Your task to perform on an android device: Open location settings Image 0: 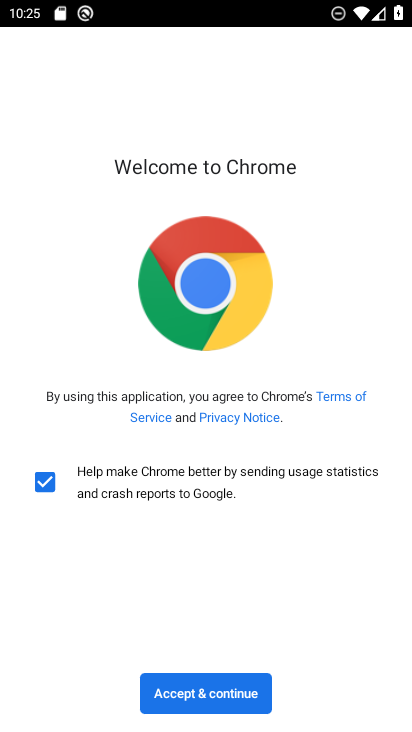
Step 0: press back button
Your task to perform on an android device: Open location settings Image 1: 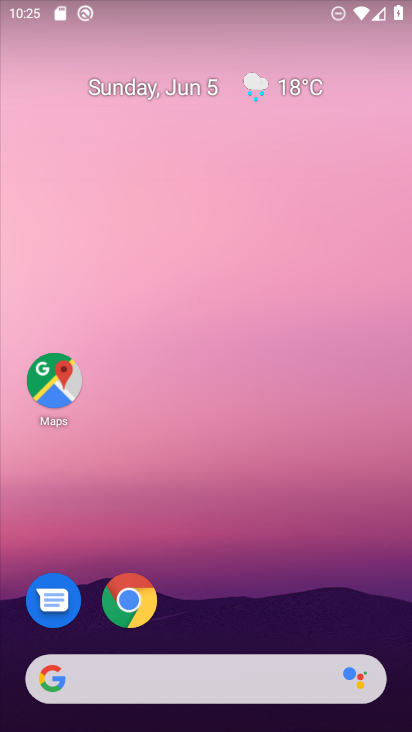
Step 1: drag from (215, 646) to (260, 80)
Your task to perform on an android device: Open location settings Image 2: 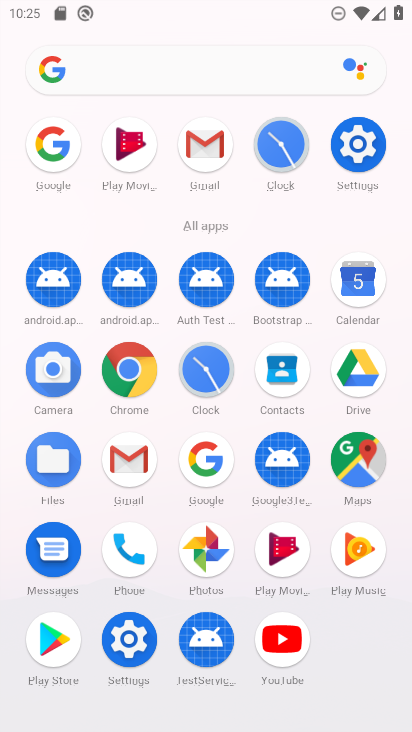
Step 2: click (356, 128)
Your task to perform on an android device: Open location settings Image 3: 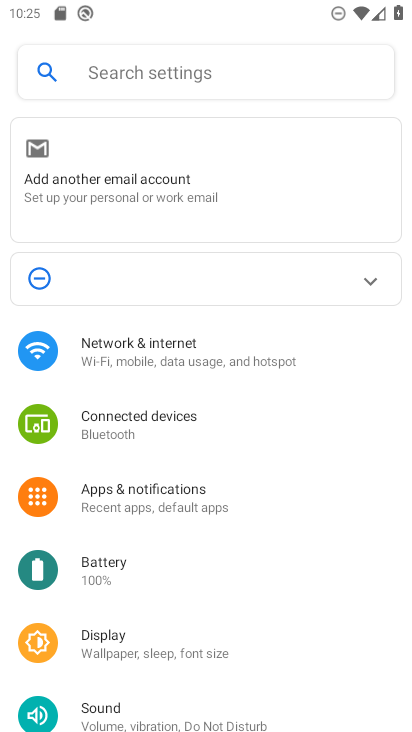
Step 3: drag from (227, 652) to (318, 160)
Your task to perform on an android device: Open location settings Image 4: 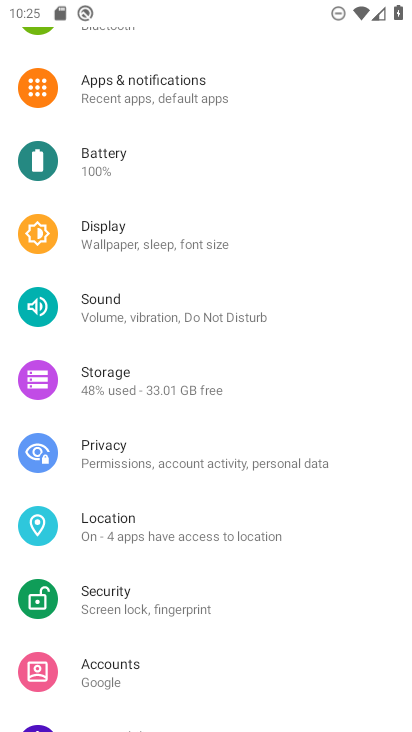
Step 4: click (114, 609)
Your task to perform on an android device: Open location settings Image 5: 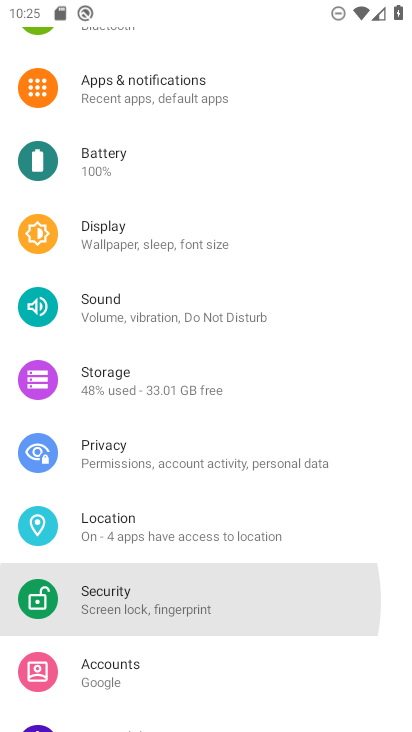
Step 5: drag from (114, 609) to (130, 511)
Your task to perform on an android device: Open location settings Image 6: 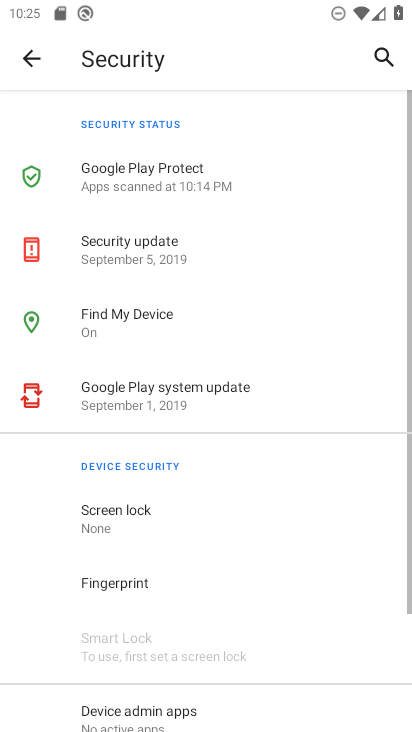
Step 6: click (40, 59)
Your task to perform on an android device: Open location settings Image 7: 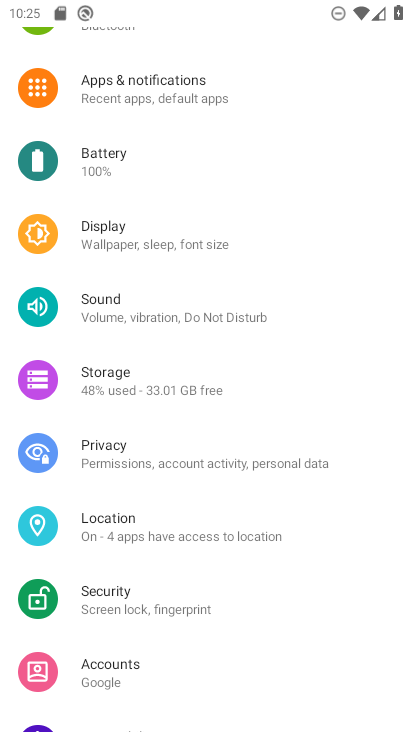
Step 7: click (117, 523)
Your task to perform on an android device: Open location settings Image 8: 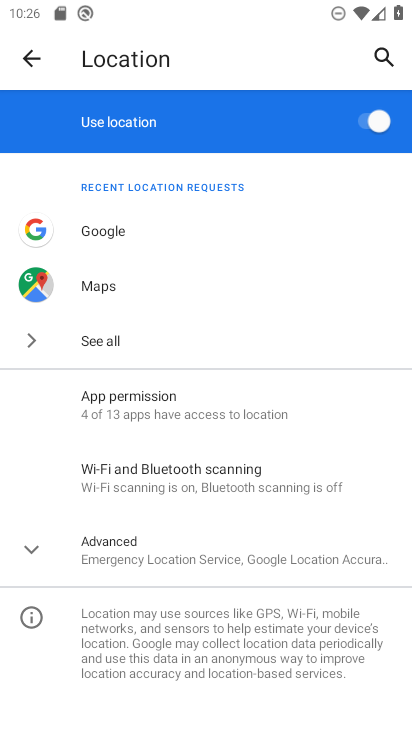
Step 8: task complete